Your task to perform on an android device: Go to Google Image 0: 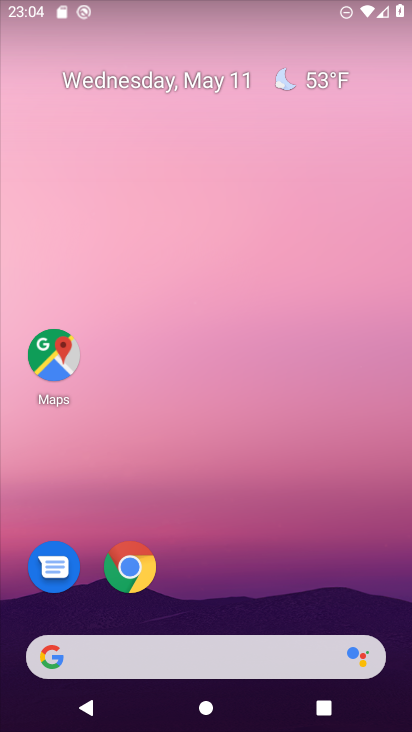
Step 0: drag from (248, 717) to (278, 158)
Your task to perform on an android device: Go to Google Image 1: 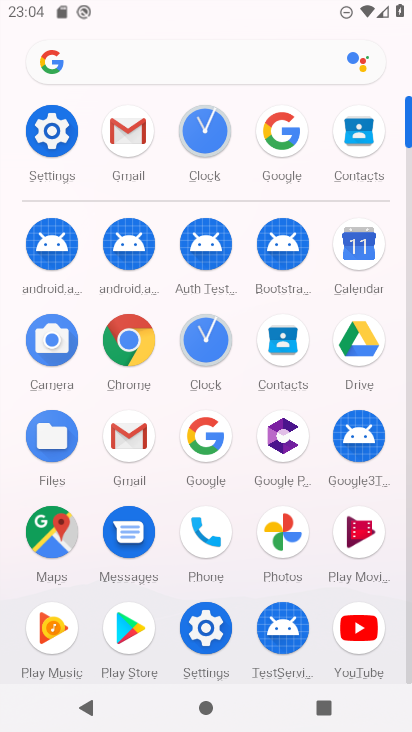
Step 1: click (204, 442)
Your task to perform on an android device: Go to Google Image 2: 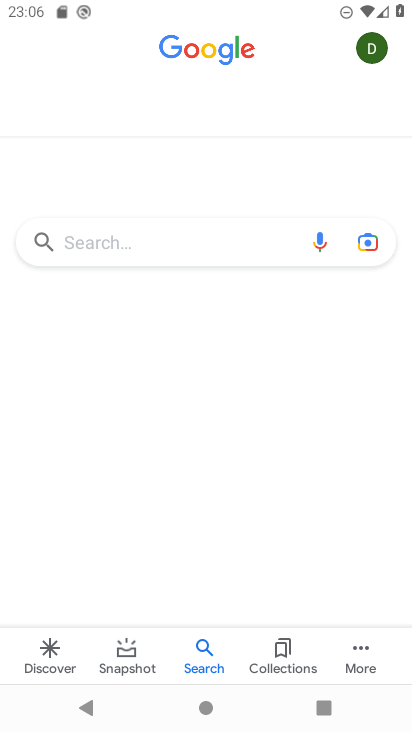
Step 2: task complete